Your task to perform on an android device: delete location history Image 0: 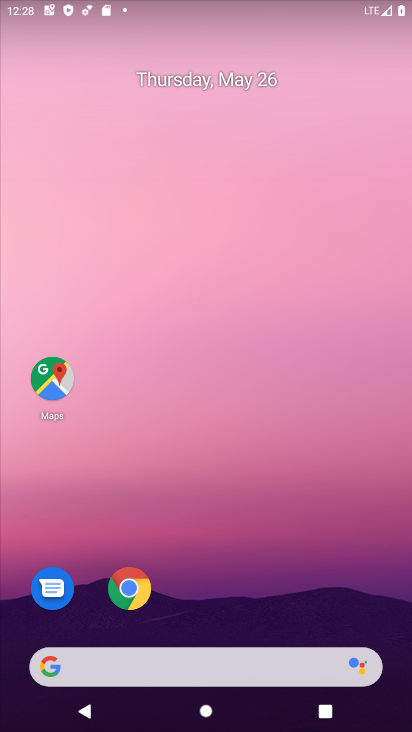
Step 0: drag from (226, 570) to (158, 0)
Your task to perform on an android device: delete location history Image 1: 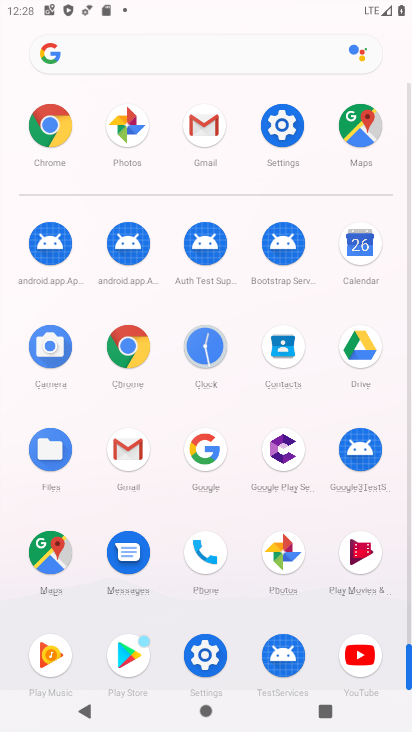
Step 1: click (204, 651)
Your task to perform on an android device: delete location history Image 2: 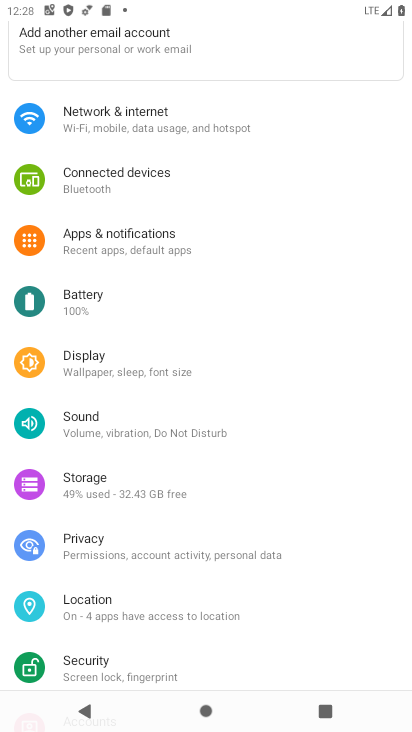
Step 2: click (120, 608)
Your task to perform on an android device: delete location history Image 3: 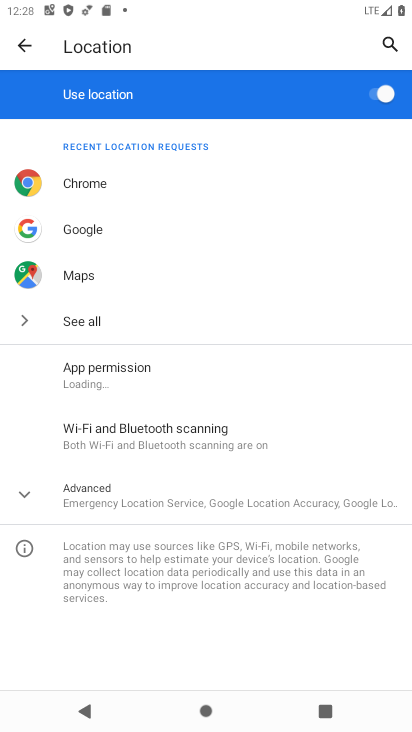
Step 3: click (79, 491)
Your task to perform on an android device: delete location history Image 4: 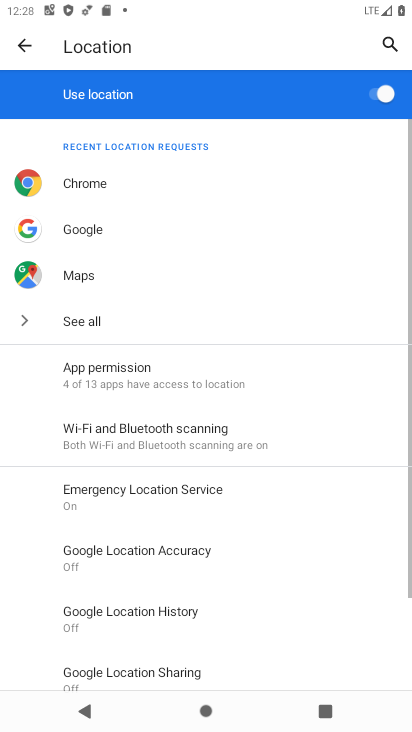
Step 4: drag from (328, 609) to (294, 199)
Your task to perform on an android device: delete location history Image 5: 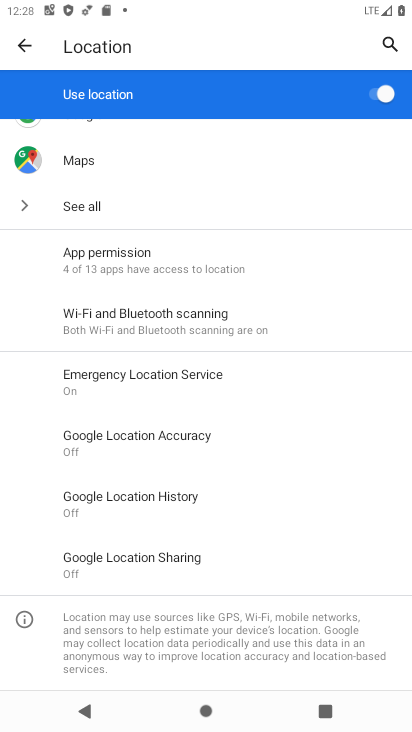
Step 5: click (172, 499)
Your task to perform on an android device: delete location history Image 6: 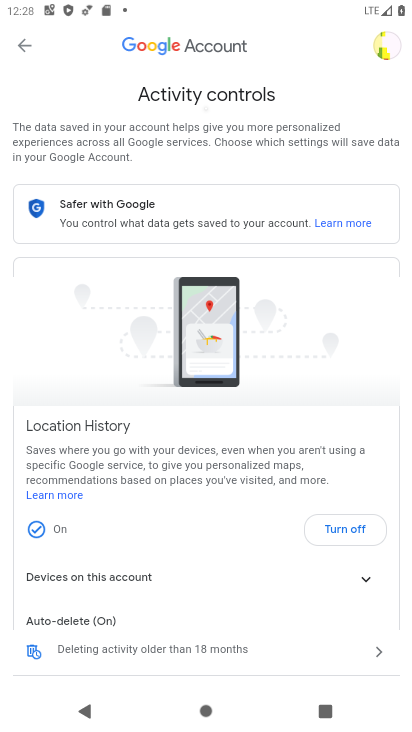
Step 6: drag from (241, 569) to (252, 31)
Your task to perform on an android device: delete location history Image 7: 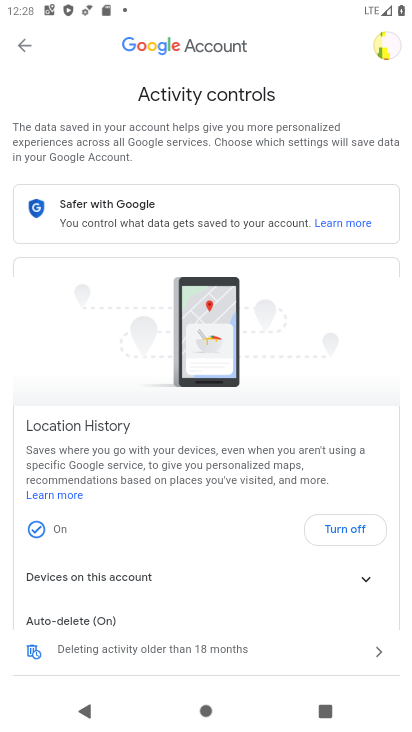
Step 7: drag from (221, 535) to (213, 129)
Your task to perform on an android device: delete location history Image 8: 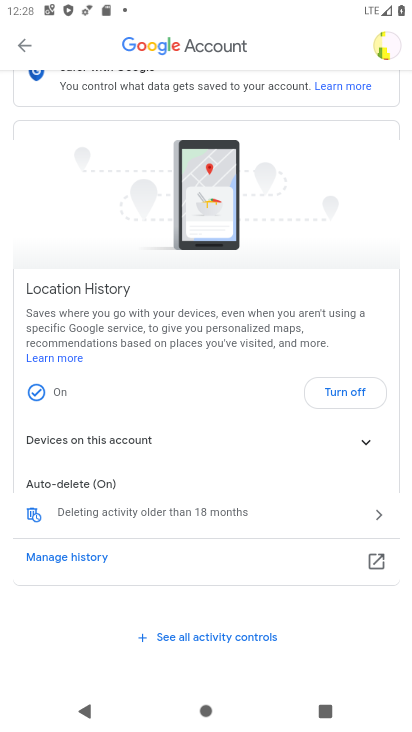
Step 8: click (73, 511)
Your task to perform on an android device: delete location history Image 9: 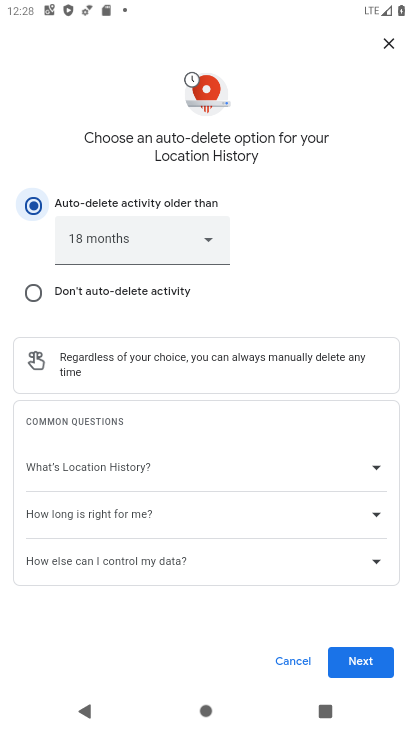
Step 9: click (373, 662)
Your task to perform on an android device: delete location history Image 10: 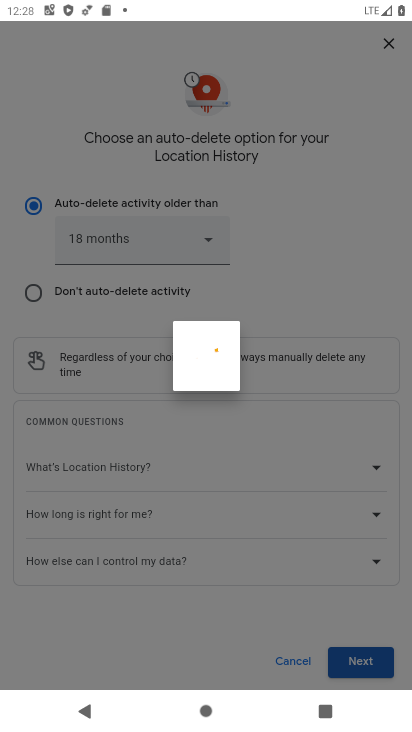
Step 10: click (372, 661)
Your task to perform on an android device: delete location history Image 11: 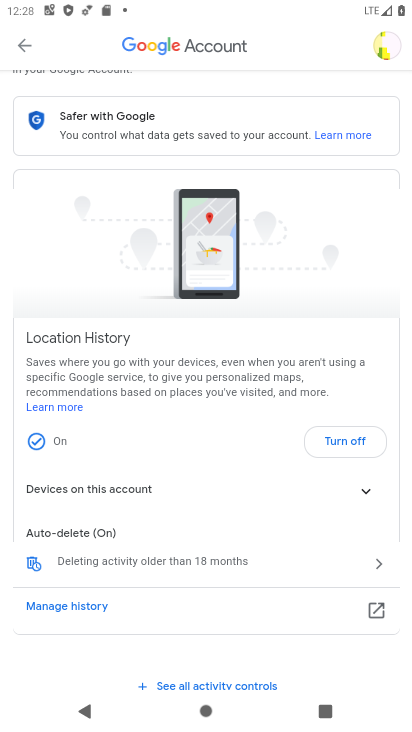
Step 11: task complete